Your task to perform on an android device: turn on wifi Image 0: 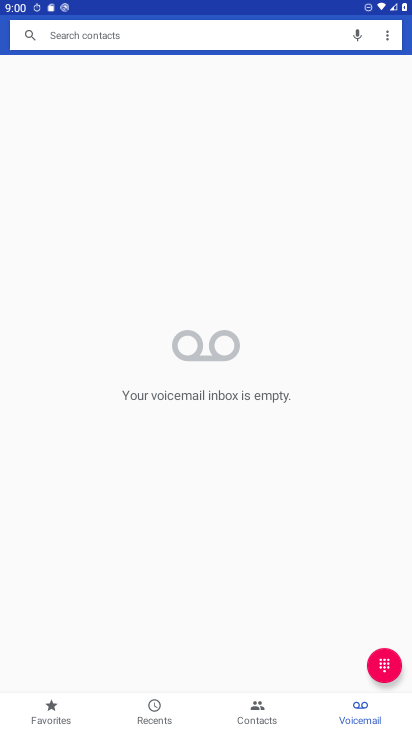
Step 0: press home button
Your task to perform on an android device: turn on wifi Image 1: 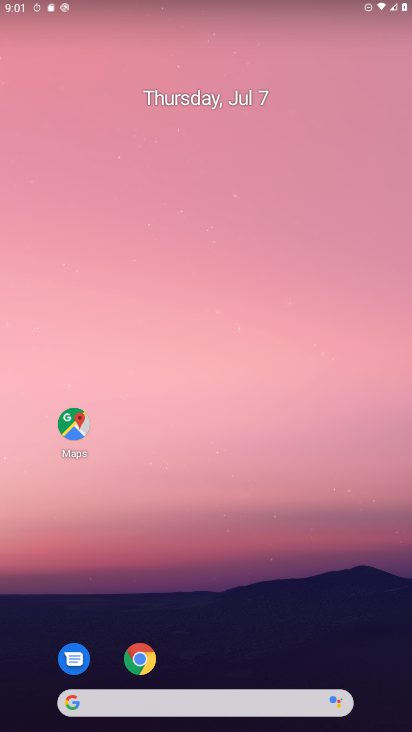
Step 1: task complete